Your task to perform on an android device: toggle sleep mode Image 0: 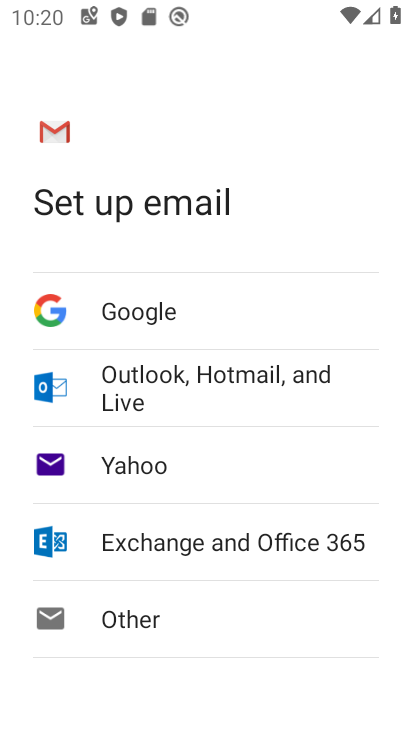
Step 0: press home button
Your task to perform on an android device: toggle sleep mode Image 1: 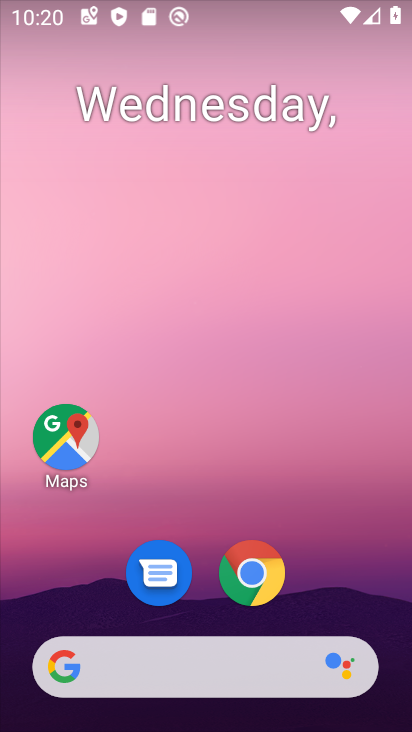
Step 1: drag from (342, 550) to (338, 154)
Your task to perform on an android device: toggle sleep mode Image 2: 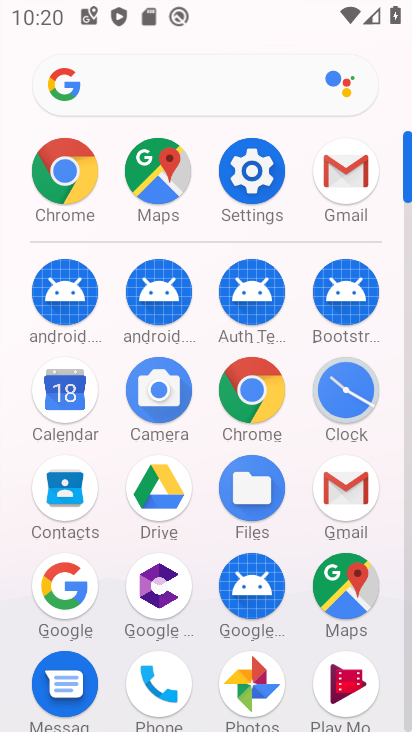
Step 2: click (258, 185)
Your task to perform on an android device: toggle sleep mode Image 3: 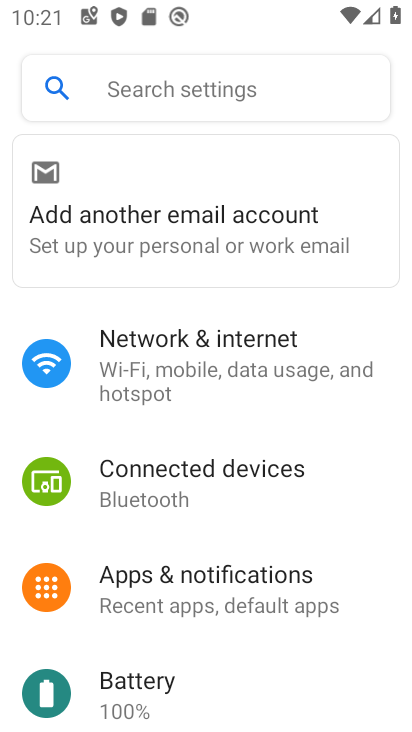
Step 3: drag from (366, 419) to (378, 266)
Your task to perform on an android device: toggle sleep mode Image 4: 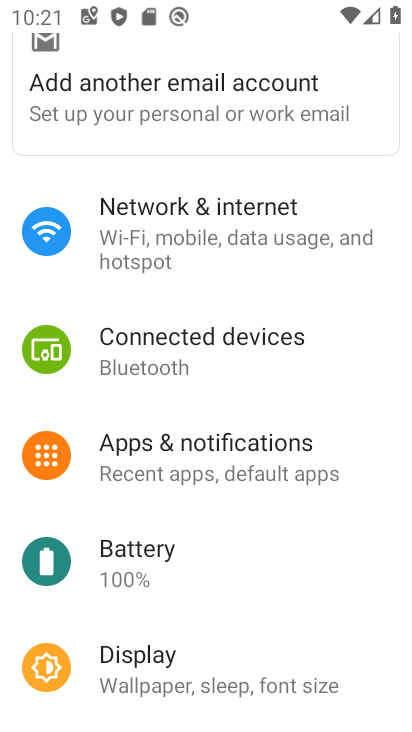
Step 4: drag from (316, 554) to (332, 368)
Your task to perform on an android device: toggle sleep mode Image 5: 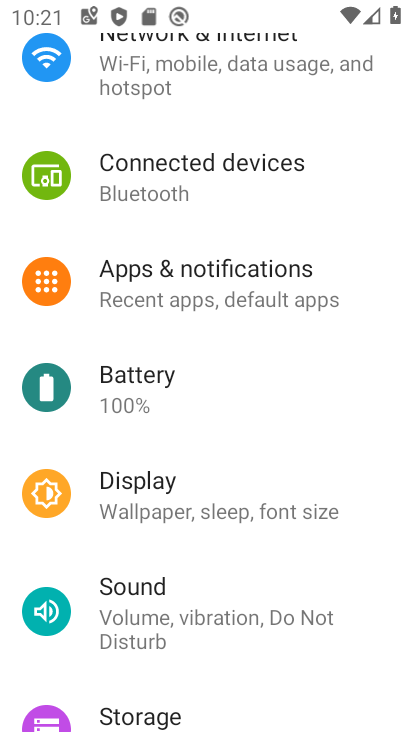
Step 5: drag from (319, 468) to (323, 298)
Your task to perform on an android device: toggle sleep mode Image 6: 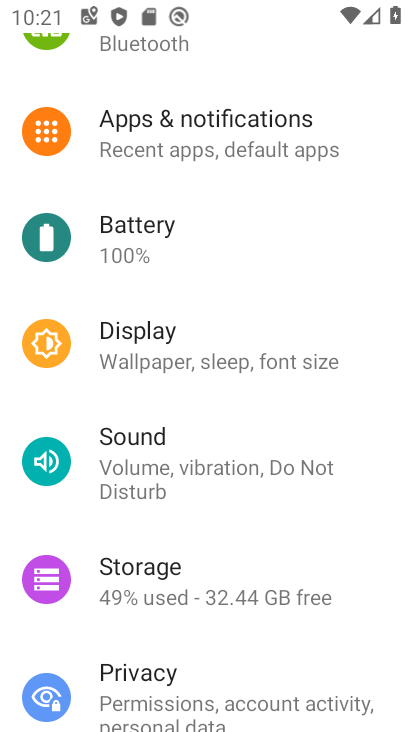
Step 6: drag from (287, 417) to (303, 265)
Your task to perform on an android device: toggle sleep mode Image 7: 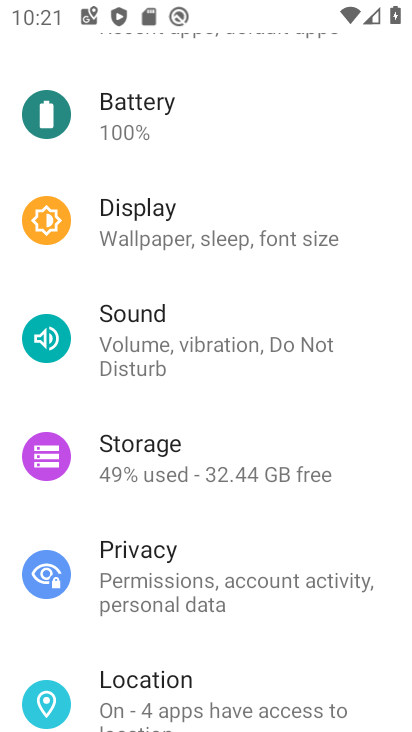
Step 7: drag from (285, 487) to (307, 274)
Your task to perform on an android device: toggle sleep mode Image 8: 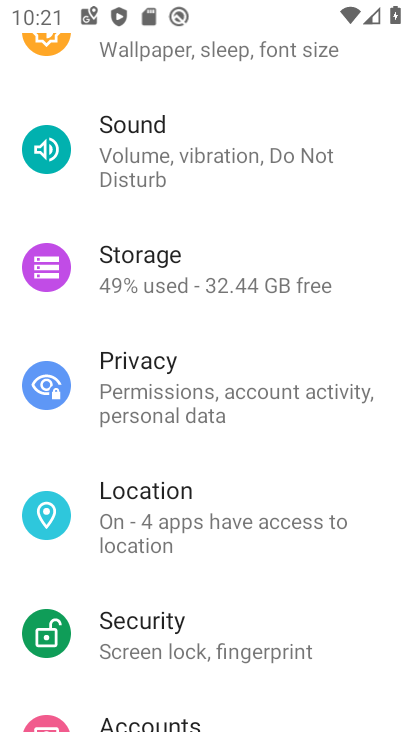
Step 8: drag from (377, 183) to (329, 337)
Your task to perform on an android device: toggle sleep mode Image 9: 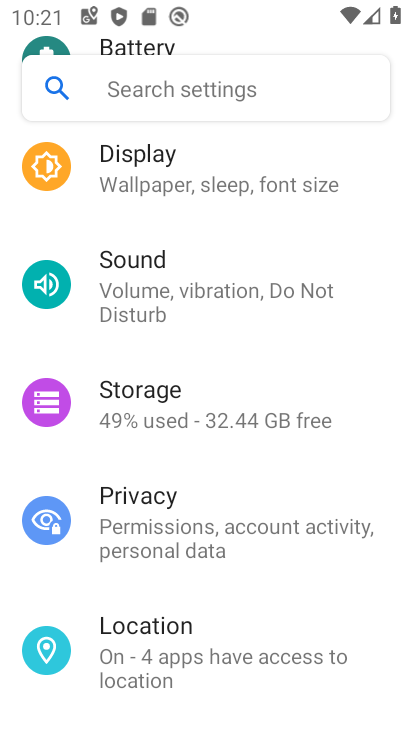
Step 9: drag from (345, 136) to (302, 281)
Your task to perform on an android device: toggle sleep mode Image 10: 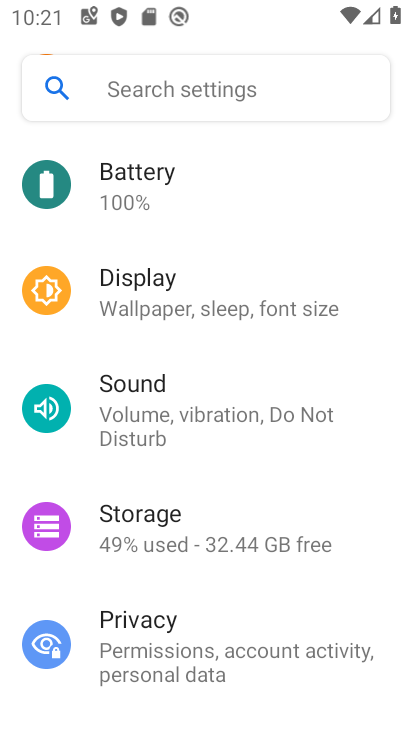
Step 10: click (128, 299)
Your task to perform on an android device: toggle sleep mode Image 11: 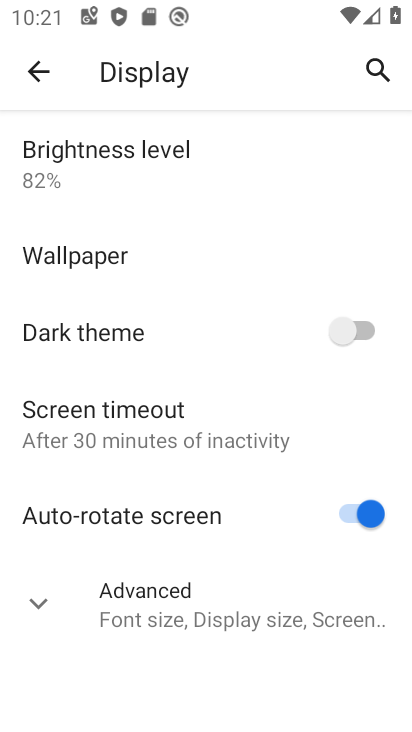
Step 11: task complete